Your task to perform on an android device: Open wifi settings Image 0: 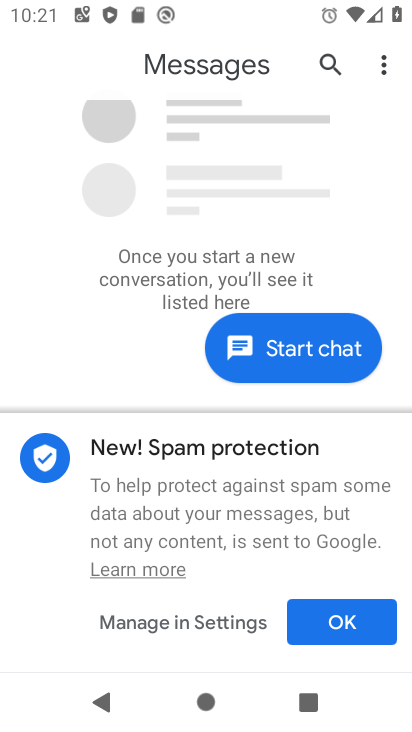
Step 0: press home button
Your task to perform on an android device: Open wifi settings Image 1: 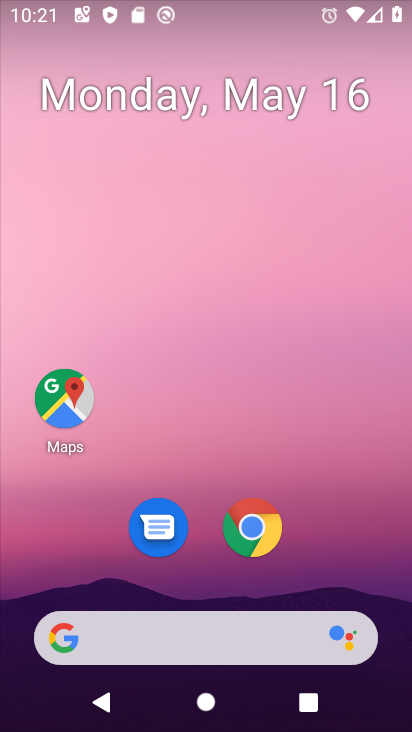
Step 1: drag from (351, 608) to (317, 14)
Your task to perform on an android device: Open wifi settings Image 2: 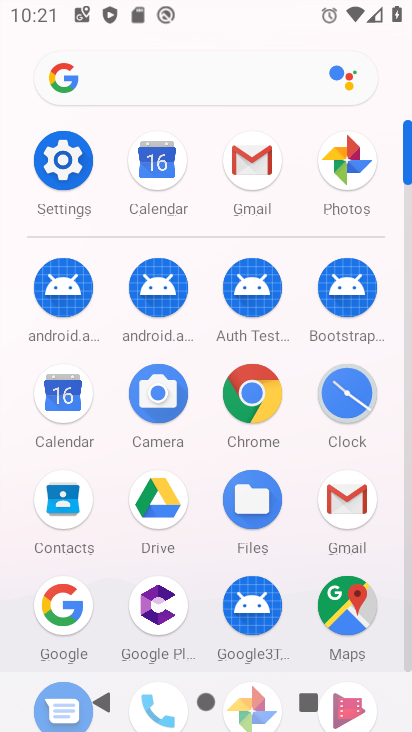
Step 2: click (61, 158)
Your task to perform on an android device: Open wifi settings Image 3: 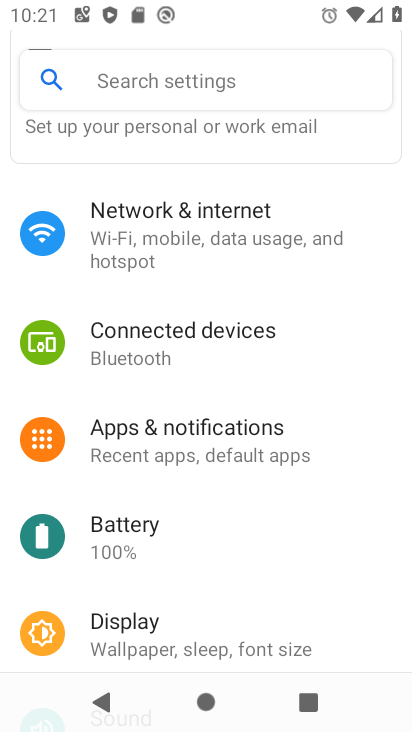
Step 3: click (161, 234)
Your task to perform on an android device: Open wifi settings Image 4: 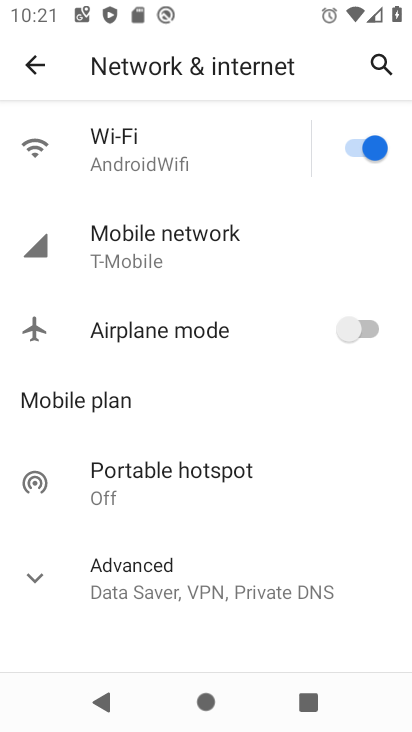
Step 4: click (92, 135)
Your task to perform on an android device: Open wifi settings Image 5: 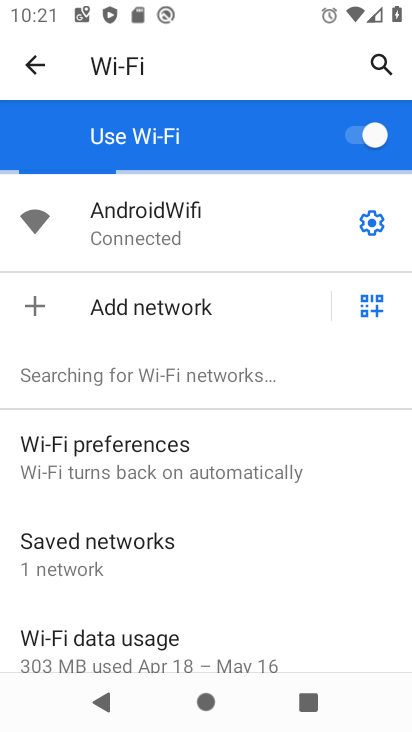
Step 5: task complete